Your task to perform on an android device: Go to calendar. Show me events next week Image 0: 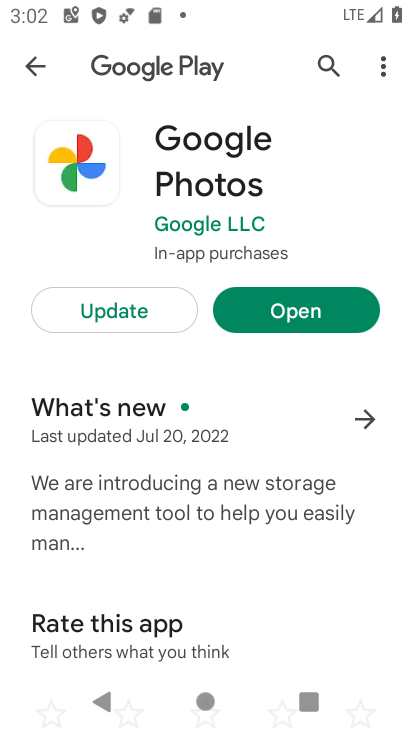
Step 0: press home button
Your task to perform on an android device: Go to calendar. Show me events next week Image 1: 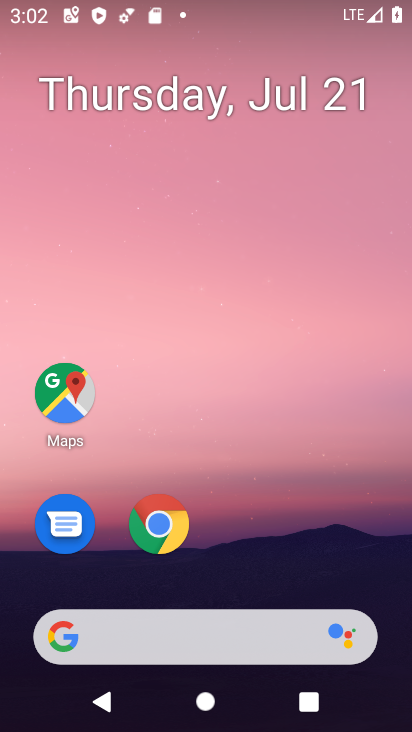
Step 1: drag from (261, 523) to (286, 64)
Your task to perform on an android device: Go to calendar. Show me events next week Image 2: 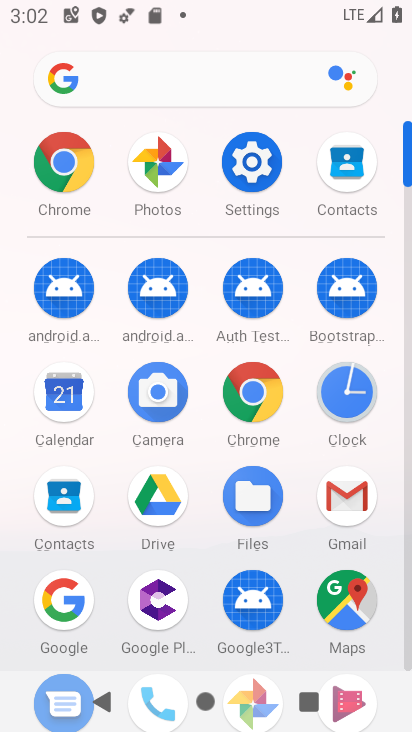
Step 2: click (67, 409)
Your task to perform on an android device: Go to calendar. Show me events next week Image 3: 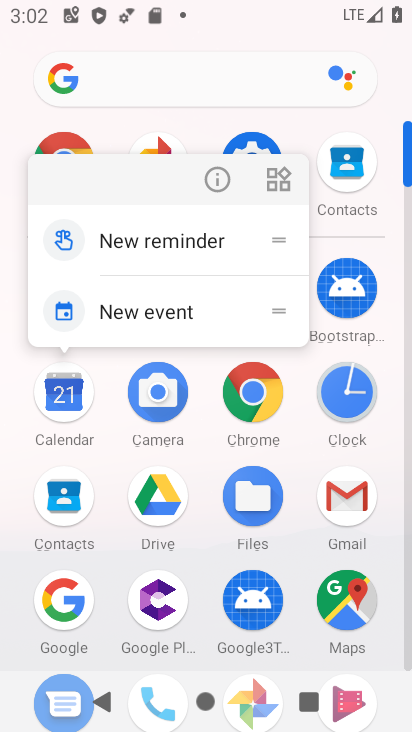
Step 3: click (72, 403)
Your task to perform on an android device: Go to calendar. Show me events next week Image 4: 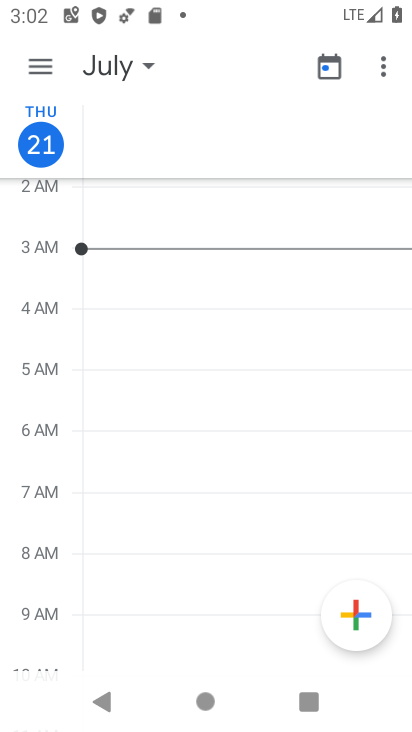
Step 4: click (38, 59)
Your task to perform on an android device: Go to calendar. Show me events next week Image 5: 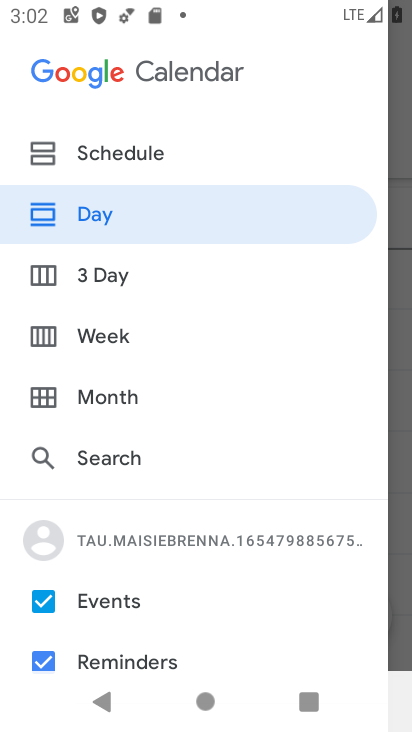
Step 5: click (82, 337)
Your task to perform on an android device: Go to calendar. Show me events next week Image 6: 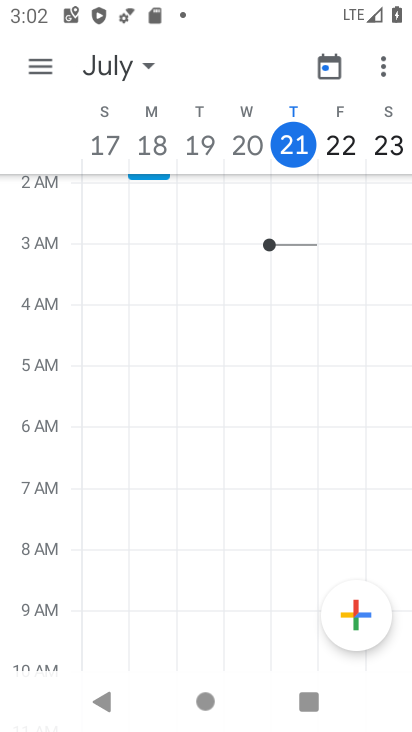
Step 6: task complete